Your task to perform on an android device: change text size in settings app Image 0: 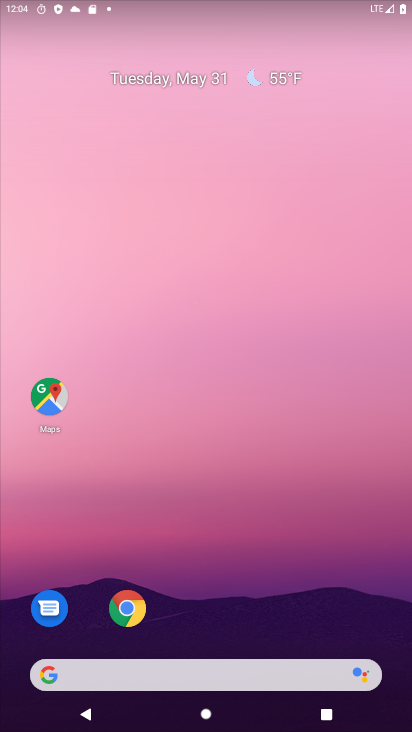
Step 0: drag from (310, 608) to (228, 0)
Your task to perform on an android device: change text size in settings app Image 1: 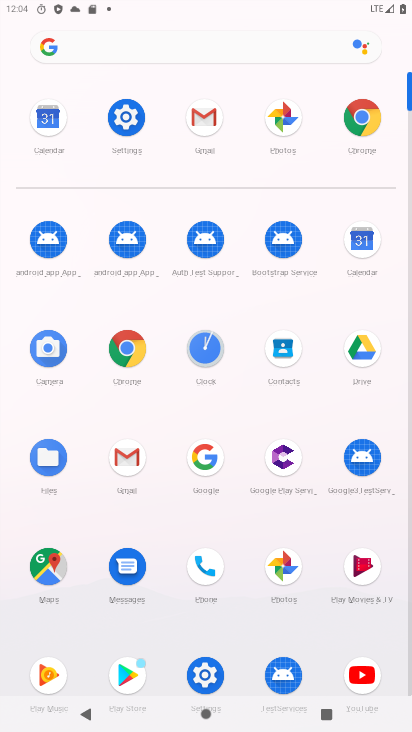
Step 1: click (123, 122)
Your task to perform on an android device: change text size in settings app Image 2: 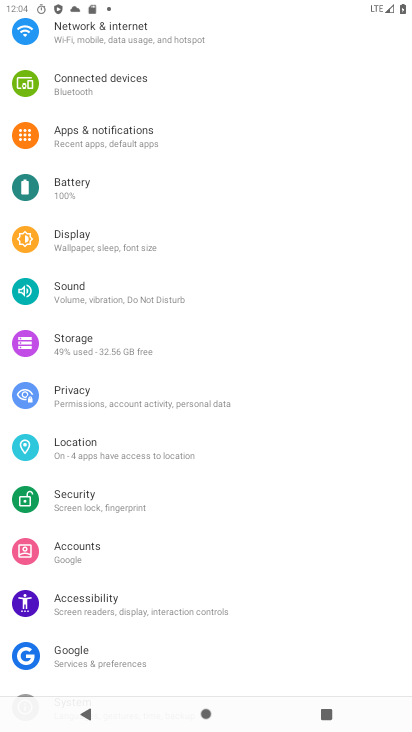
Step 2: click (63, 244)
Your task to perform on an android device: change text size in settings app Image 3: 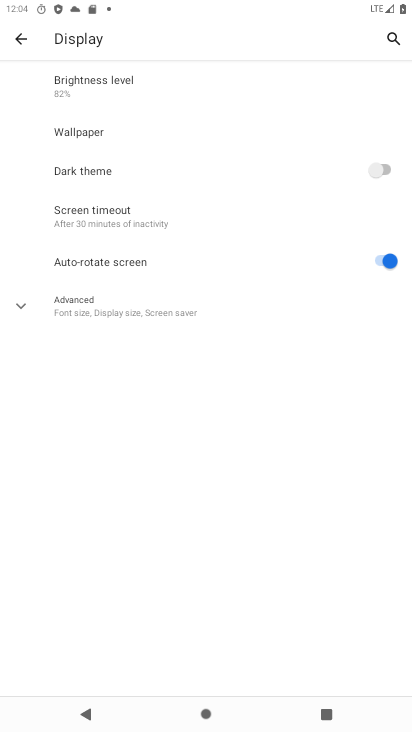
Step 3: click (19, 311)
Your task to perform on an android device: change text size in settings app Image 4: 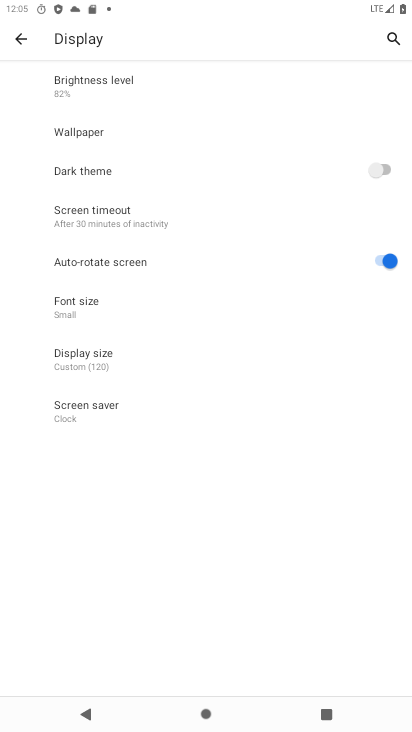
Step 4: click (70, 310)
Your task to perform on an android device: change text size in settings app Image 5: 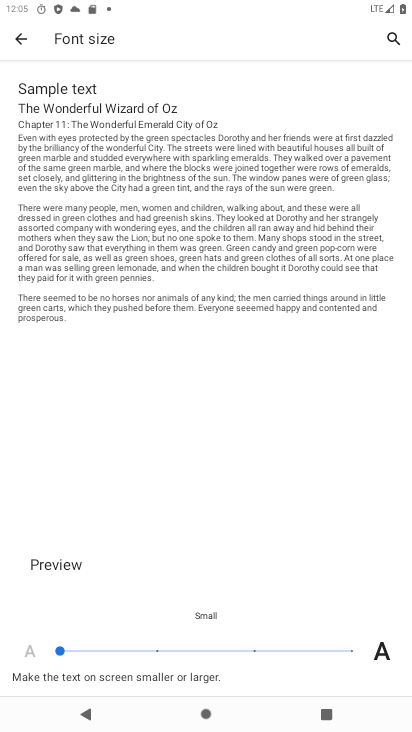
Step 5: click (152, 652)
Your task to perform on an android device: change text size in settings app Image 6: 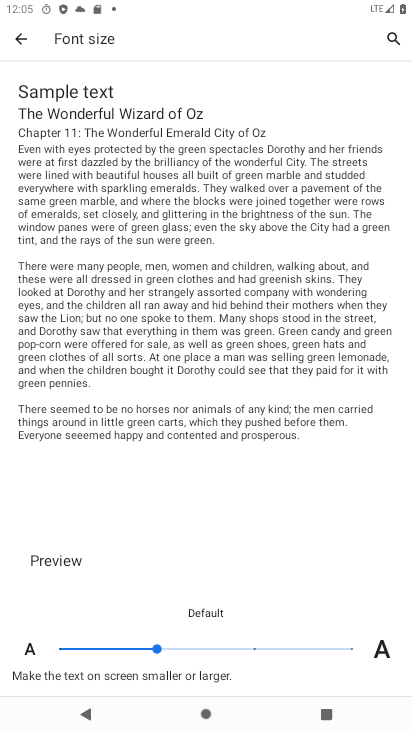
Step 6: task complete